Your task to perform on an android device: turn on the 24-hour format for clock Image 0: 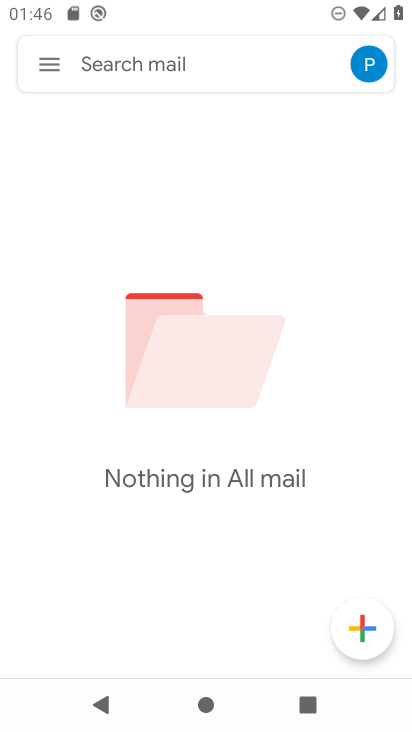
Step 0: press home button
Your task to perform on an android device: turn on the 24-hour format for clock Image 1: 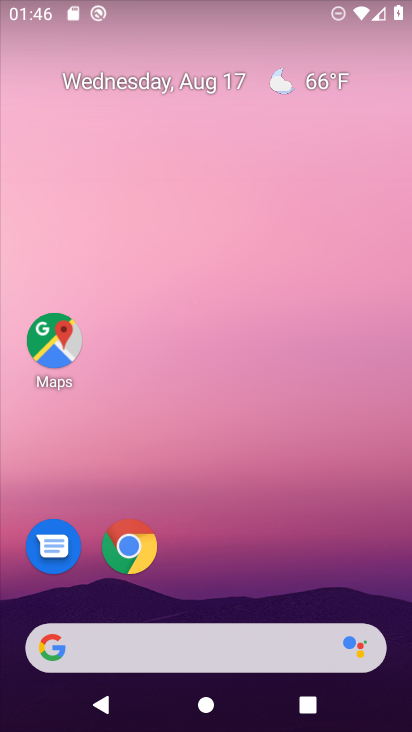
Step 1: drag from (223, 560) to (242, 156)
Your task to perform on an android device: turn on the 24-hour format for clock Image 2: 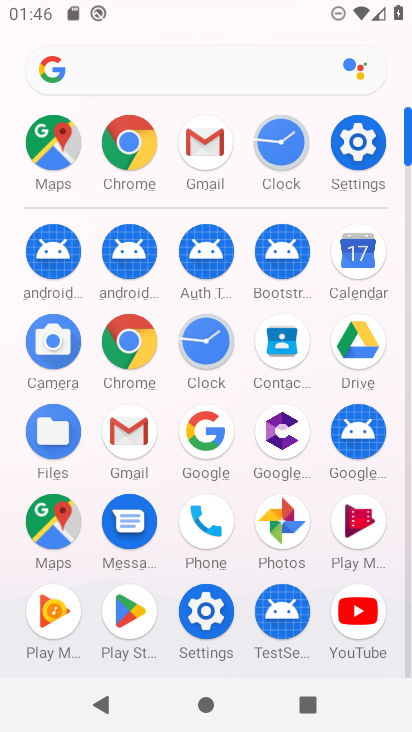
Step 2: click (283, 145)
Your task to perform on an android device: turn on the 24-hour format for clock Image 3: 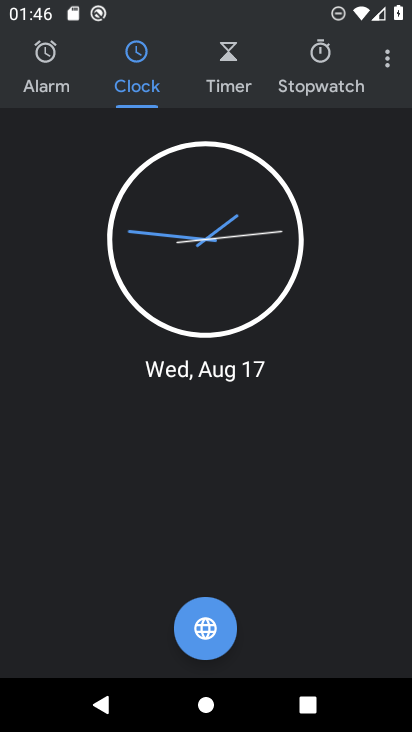
Step 3: click (388, 56)
Your task to perform on an android device: turn on the 24-hour format for clock Image 4: 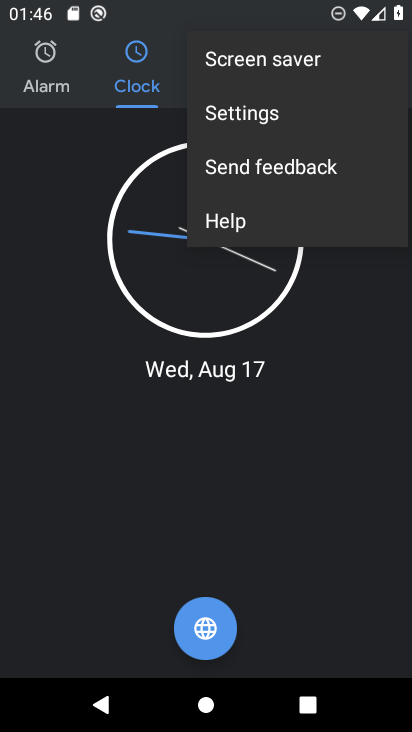
Step 4: click (270, 110)
Your task to perform on an android device: turn on the 24-hour format for clock Image 5: 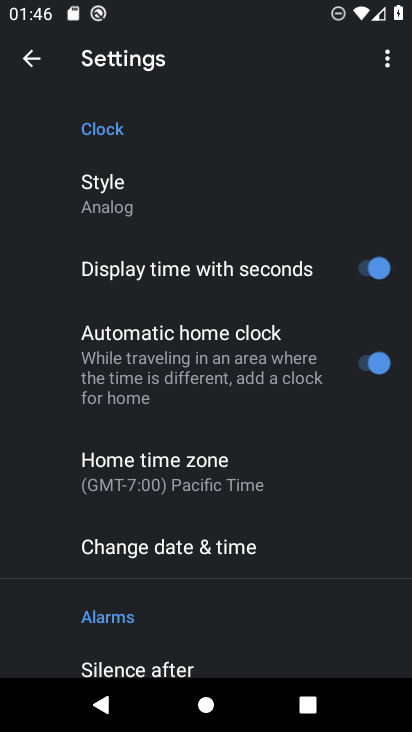
Step 5: click (169, 549)
Your task to perform on an android device: turn on the 24-hour format for clock Image 6: 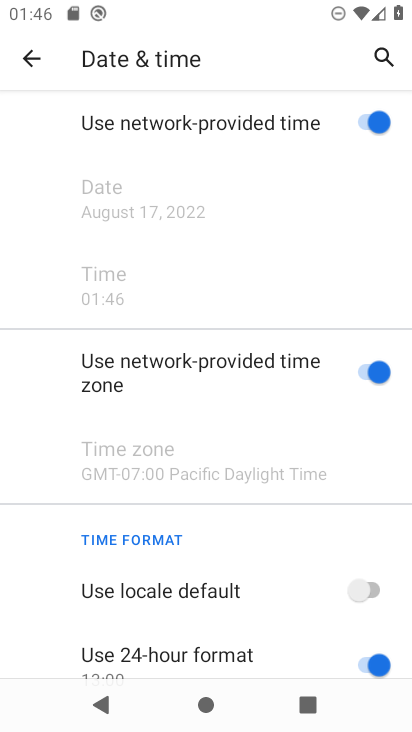
Step 6: task complete